Your task to perform on an android device: Play the latest video from the Wall Street Journal Image 0: 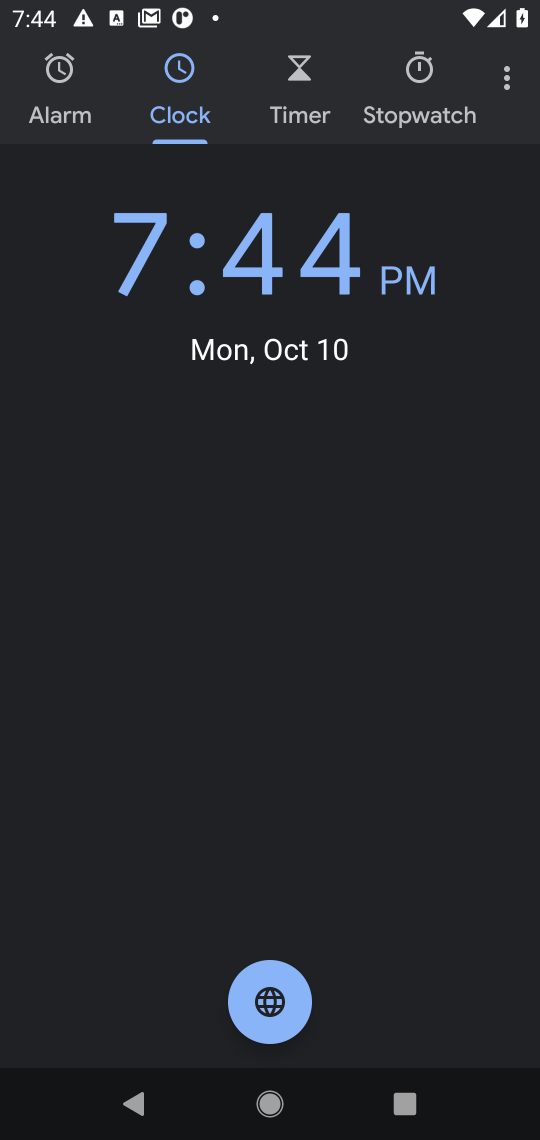
Step 0: press back button
Your task to perform on an android device: Play the latest video from the Wall Street Journal Image 1: 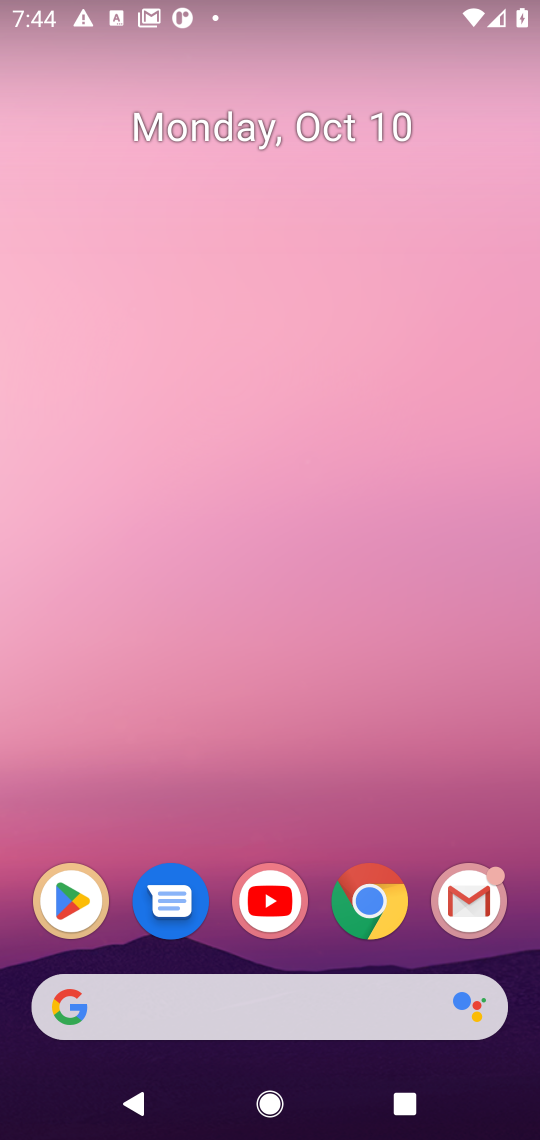
Step 1: drag from (321, 832) to (308, 150)
Your task to perform on an android device: Play the latest video from the Wall Street Journal Image 2: 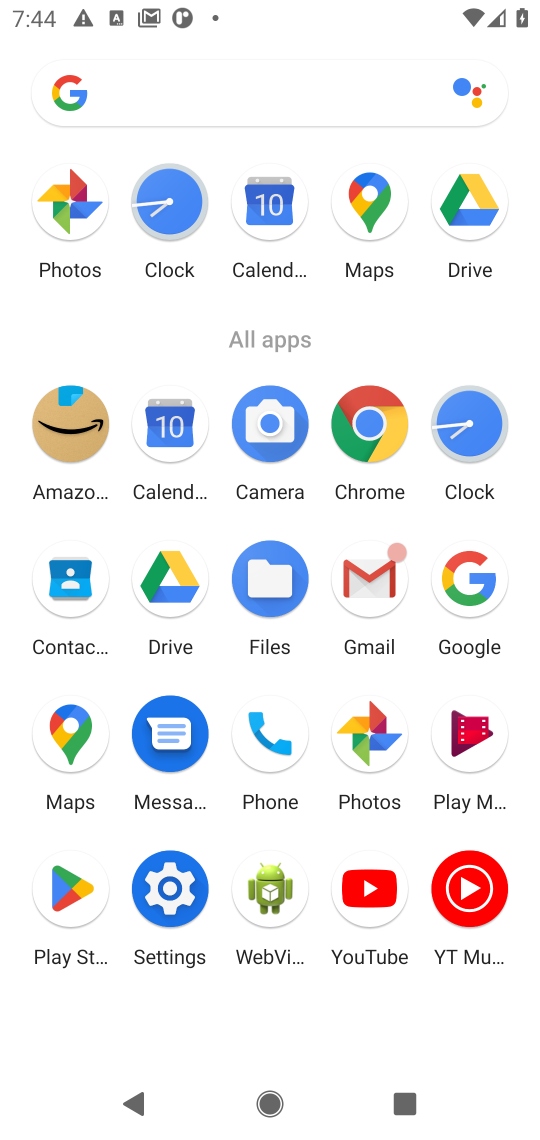
Step 2: click (371, 877)
Your task to perform on an android device: Play the latest video from the Wall Street Journal Image 3: 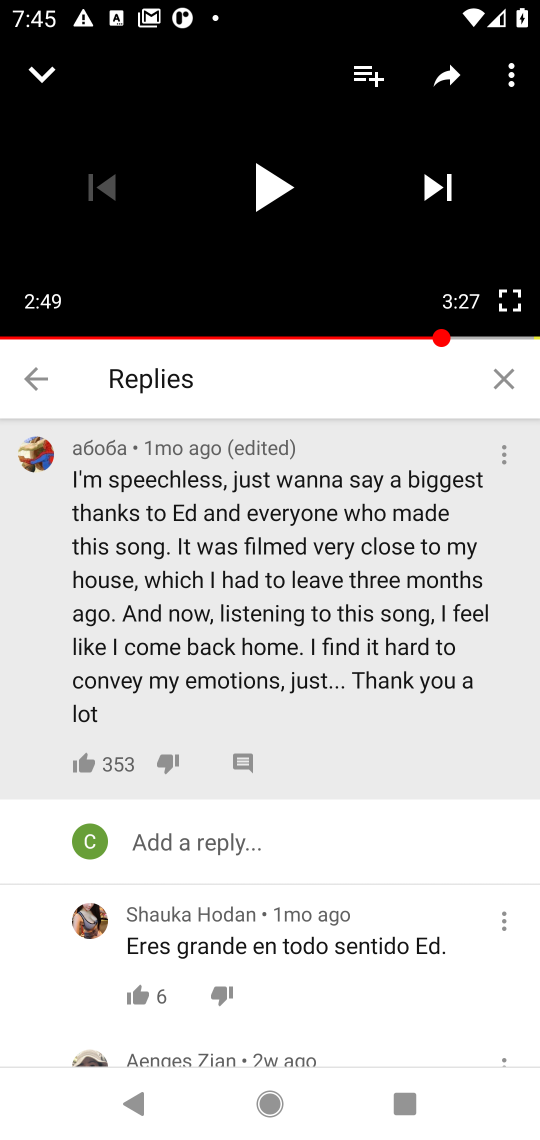
Step 3: press back button
Your task to perform on an android device: Play the latest video from the Wall Street Journal Image 4: 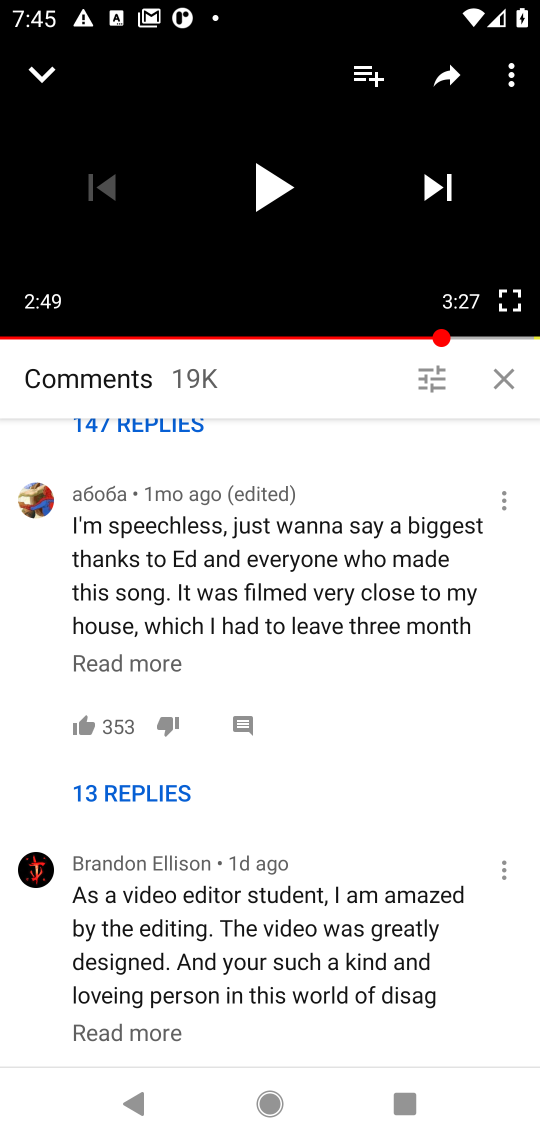
Step 4: press back button
Your task to perform on an android device: Play the latest video from the Wall Street Journal Image 5: 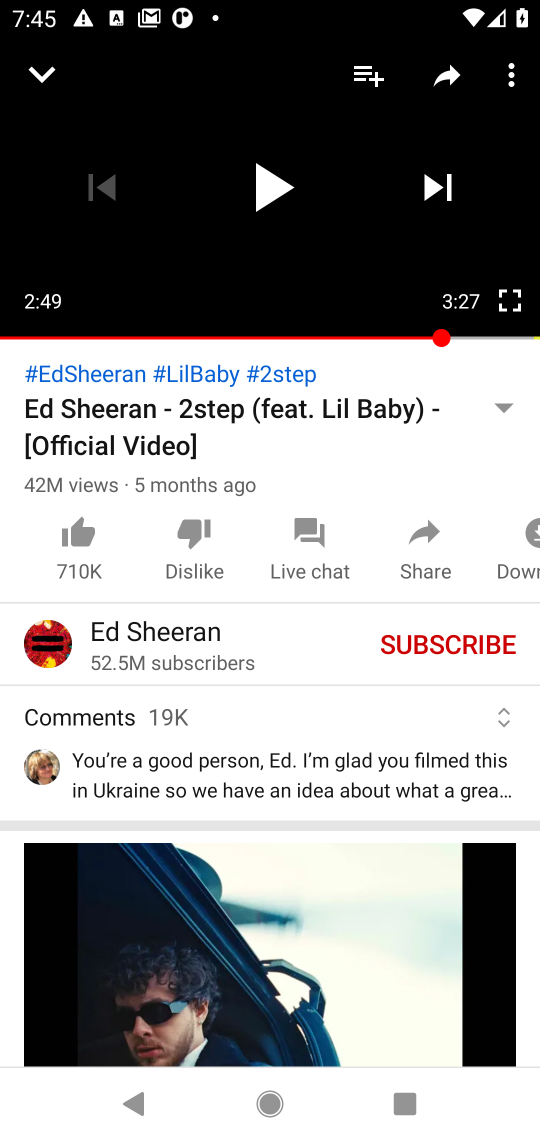
Step 5: drag from (226, 123) to (199, 1064)
Your task to perform on an android device: Play the latest video from the Wall Street Journal Image 6: 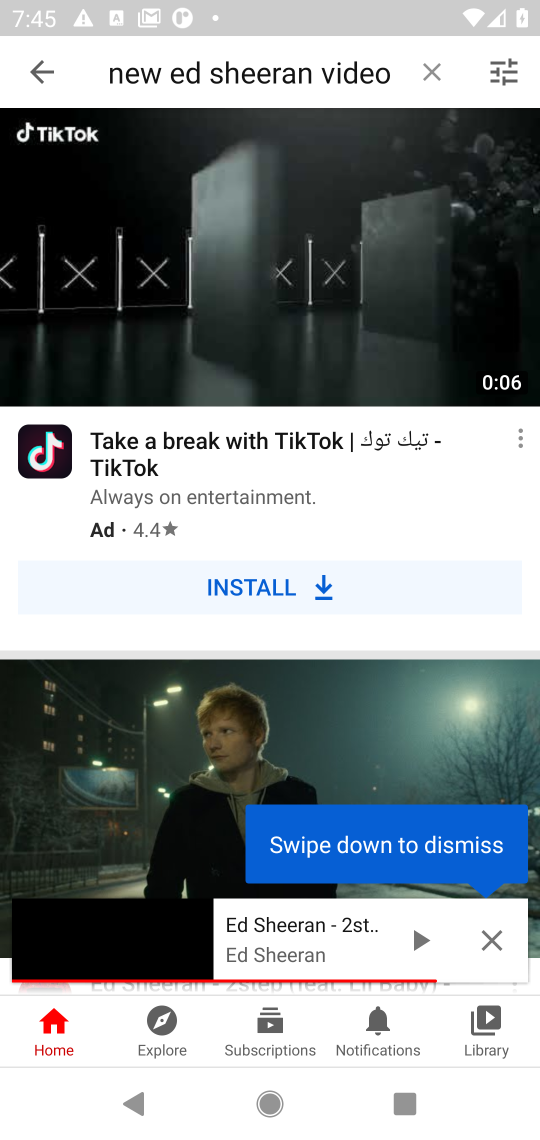
Step 6: click (51, 69)
Your task to perform on an android device: Play the latest video from the Wall Street Journal Image 7: 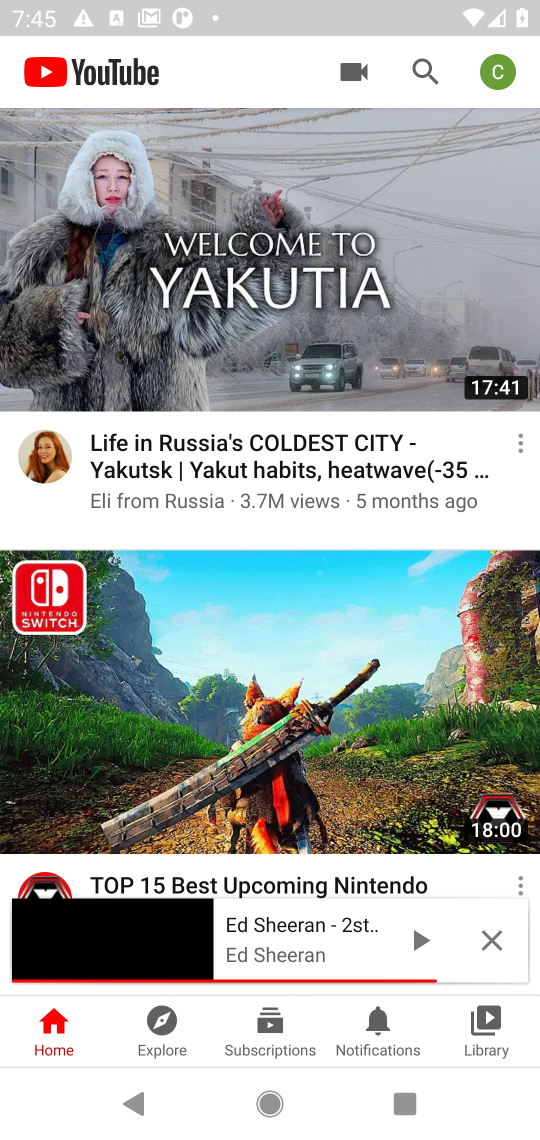
Step 7: click (422, 65)
Your task to perform on an android device: Play the latest video from the Wall Street Journal Image 8: 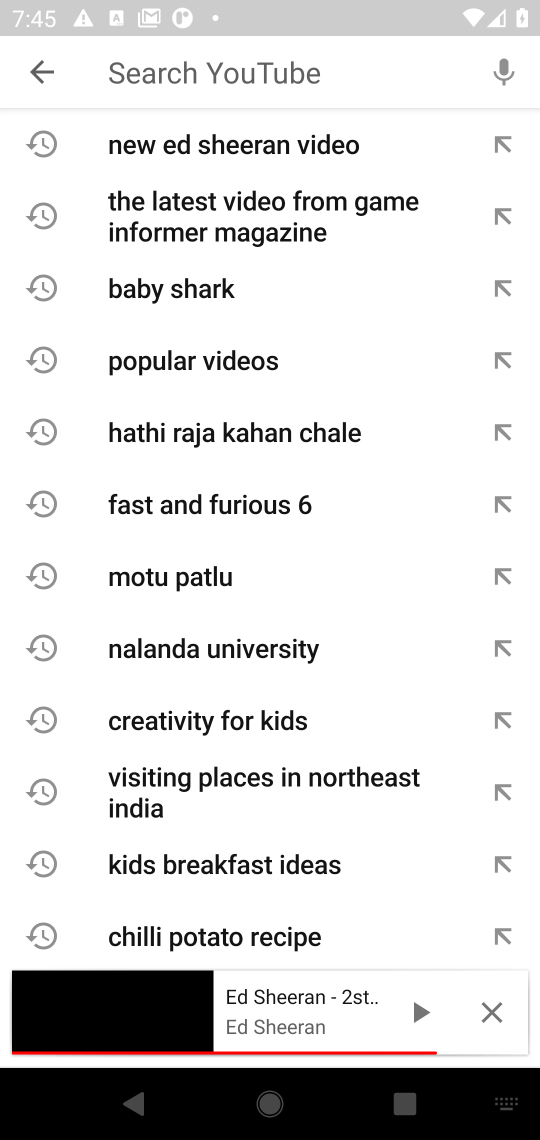
Step 8: type "latest video from the Wall Street Journal"
Your task to perform on an android device: Play the latest video from the Wall Street Journal Image 9: 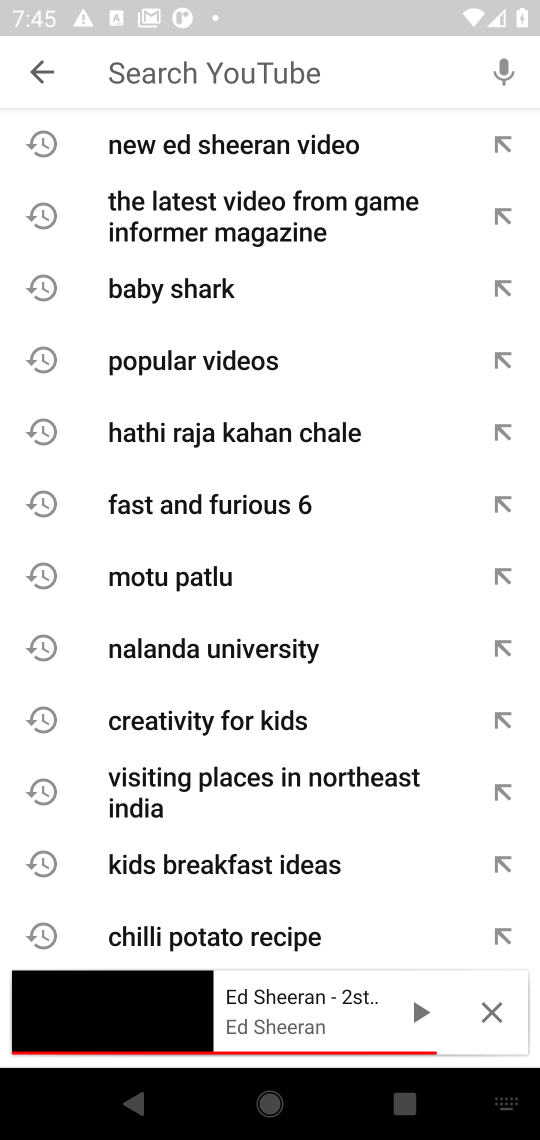
Step 9: click (485, 1009)
Your task to perform on an android device: Play the latest video from the Wall Street Journal Image 10: 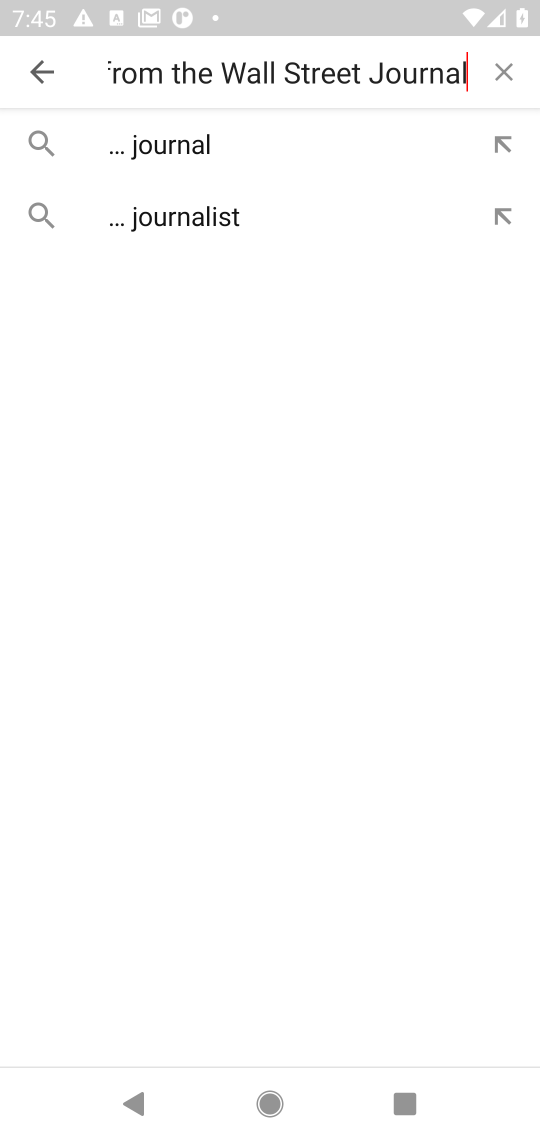
Step 10: press enter
Your task to perform on an android device: Play the latest video from the Wall Street Journal Image 11: 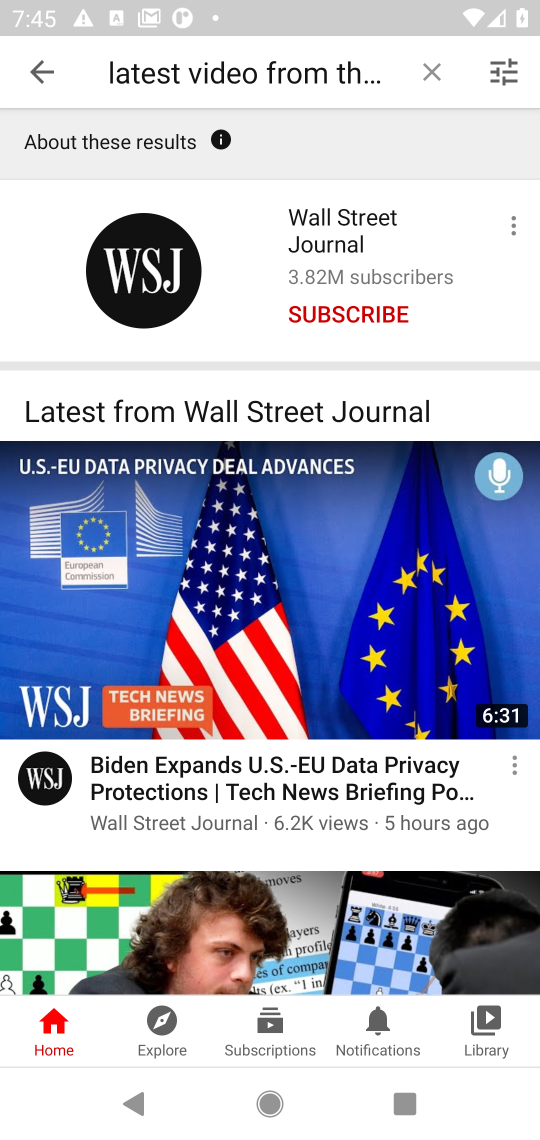
Step 11: drag from (239, 726) to (225, 386)
Your task to perform on an android device: Play the latest video from the Wall Street Journal Image 12: 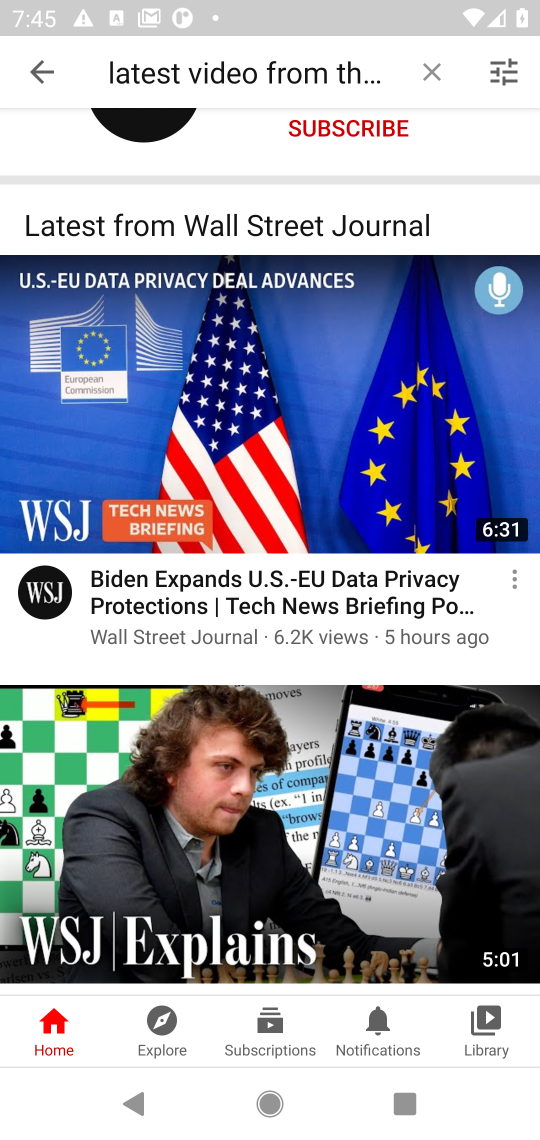
Step 12: click (259, 597)
Your task to perform on an android device: Play the latest video from the Wall Street Journal Image 13: 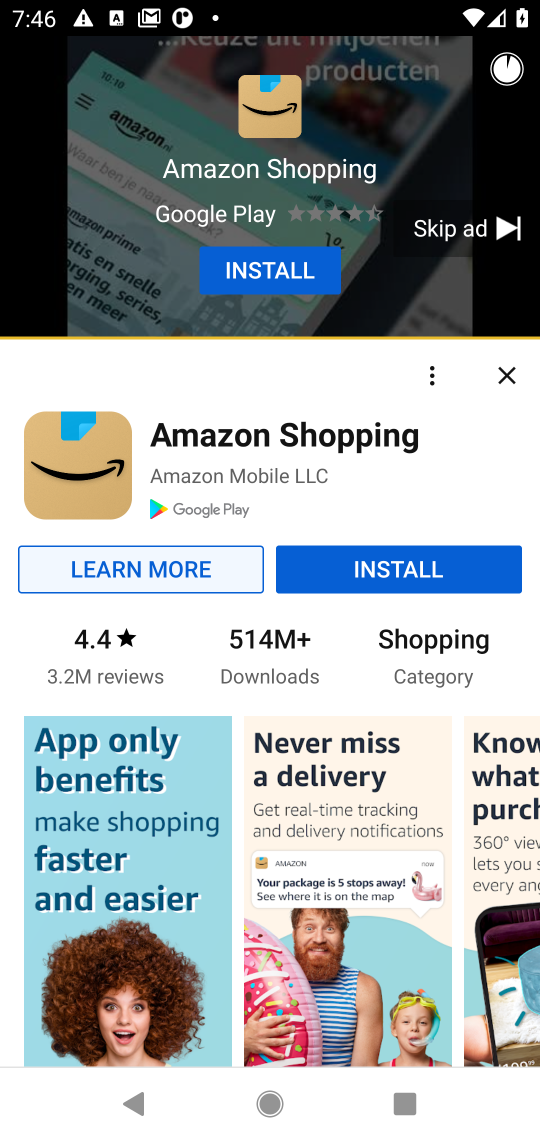
Step 13: click (411, 251)
Your task to perform on an android device: Play the latest video from the Wall Street Journal Image 14: 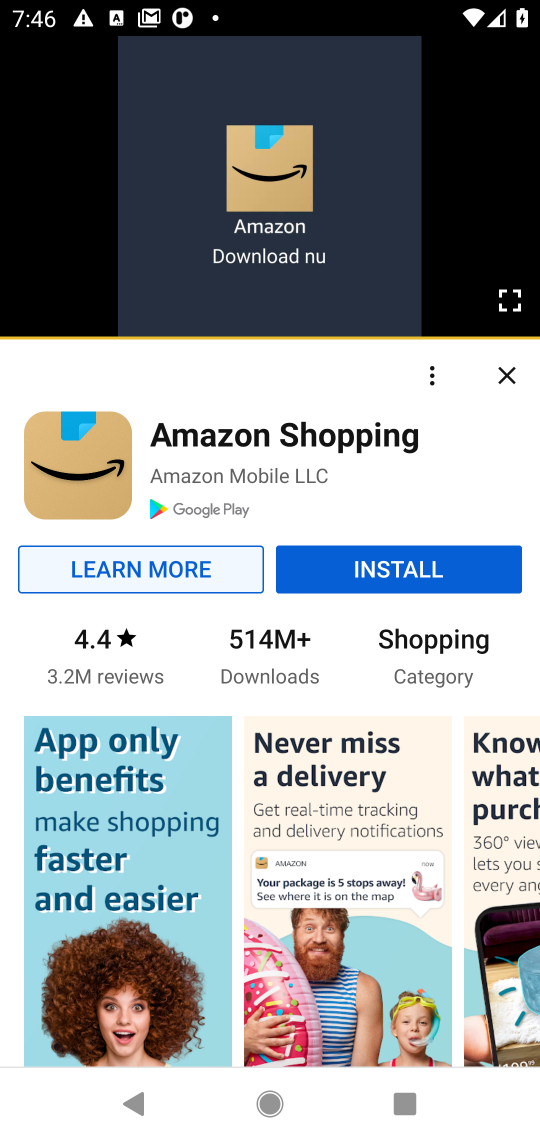
Step 14: click (430, 240)
Your task to perform on an android device: Play the latest video from the Wall Street Journal Image 15: 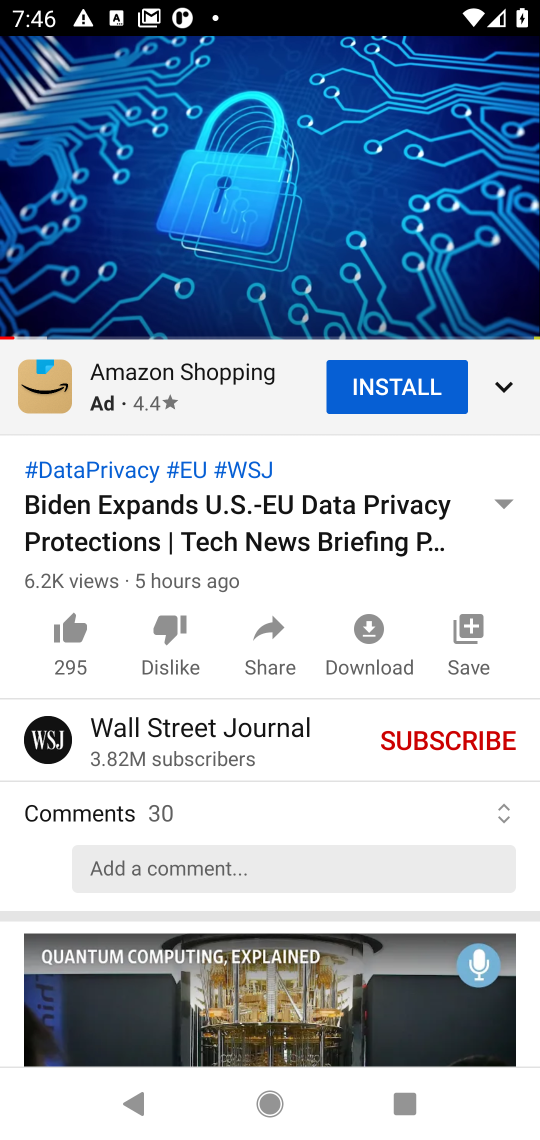
Step 15: click (38, 338)
Your task to perform on an android device: Play the latest video from the Wall Street Journal Image 16: 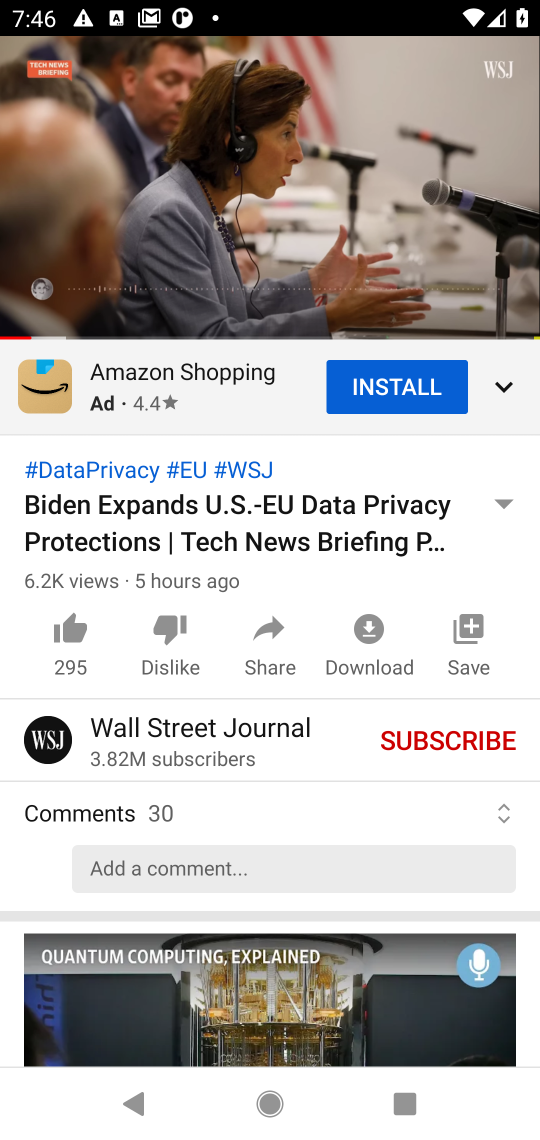
Step 16: click (60, 333)
Your task to perform on an android device: Play the latest video from the Wall Street Journal Image 17: 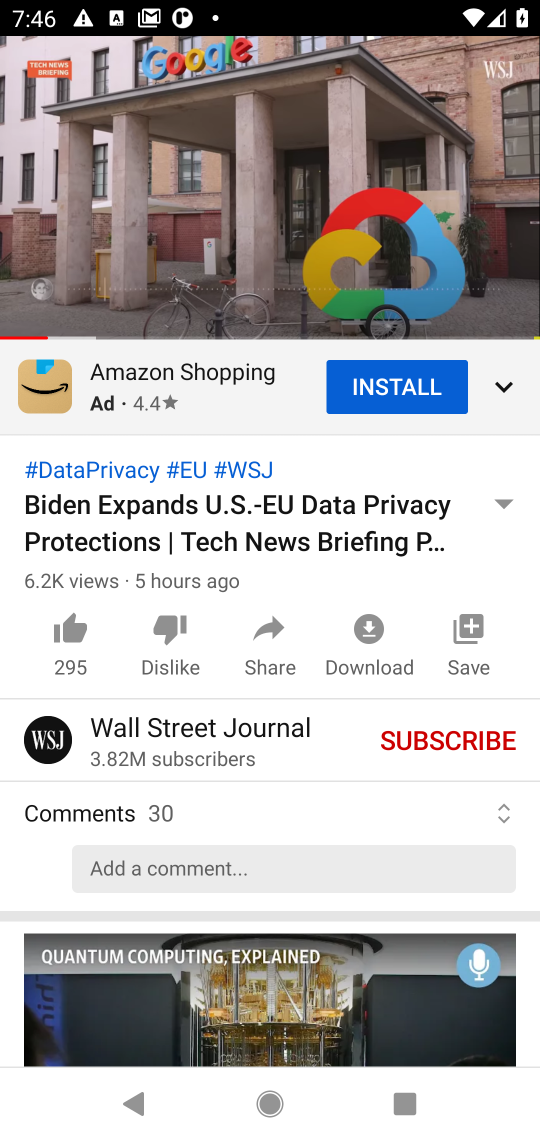
Step 17: click (243, 237)
Your task to perform on an android device: Play the latest video from the Wall Street Journal Image 18: 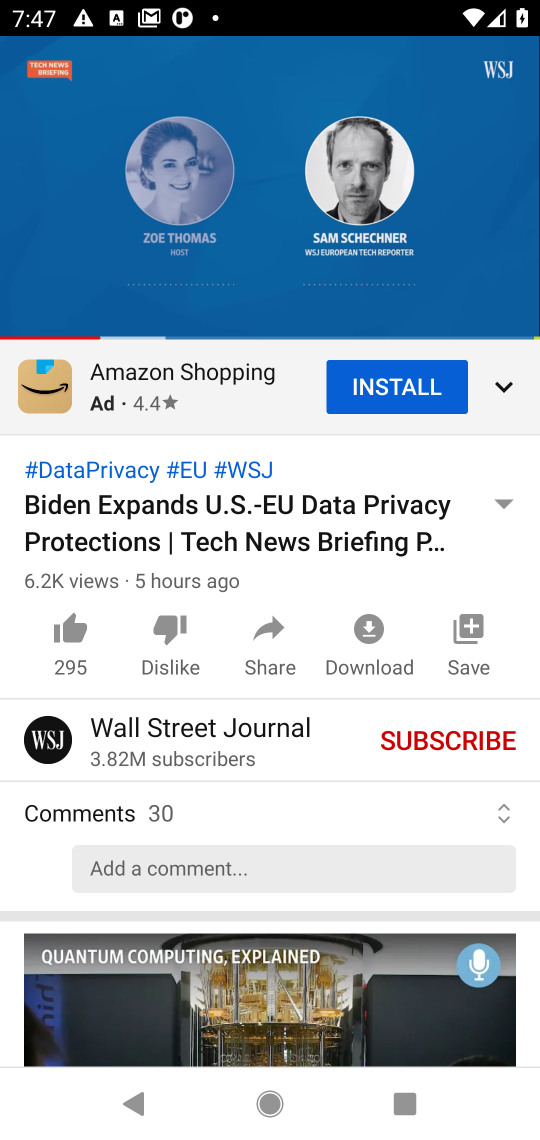
Step 18: task complete